Your task to perform on an android device: turn off location Image 0: 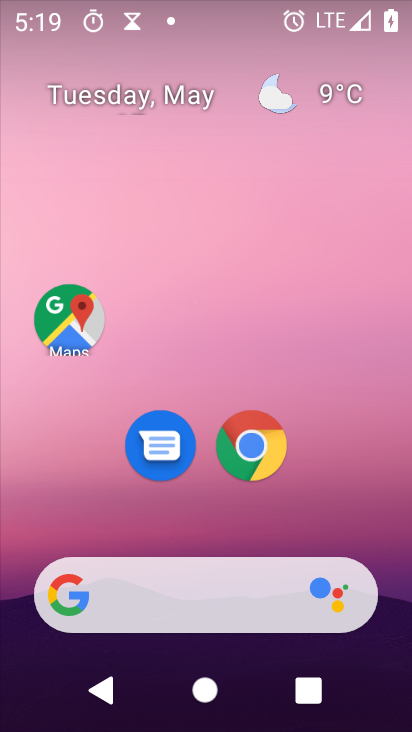
Step 0: drag from (254, 569) to (189, 4)
Your task to perform on an android device: turn off location Image 1: 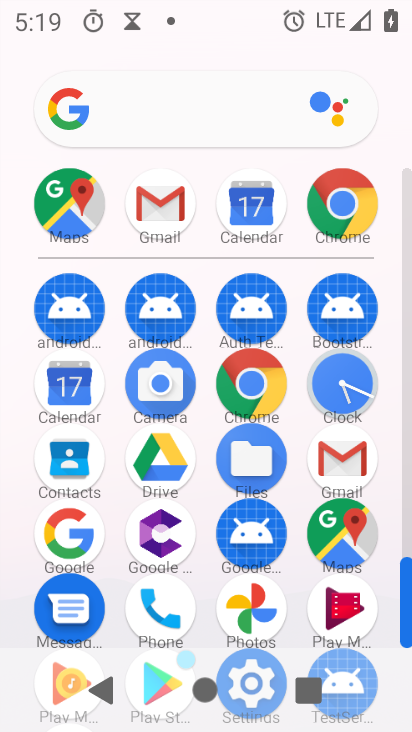
Step 1: drag from (289, 600) to (286, 380)
Your task to perform on an android device: turn off location Image 2: 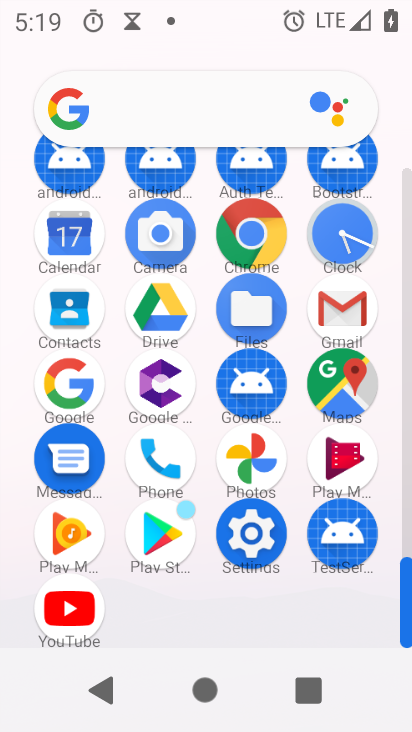
Step 2: click (252, 550)
Your task to perform on an android device: turn off location Image 3: 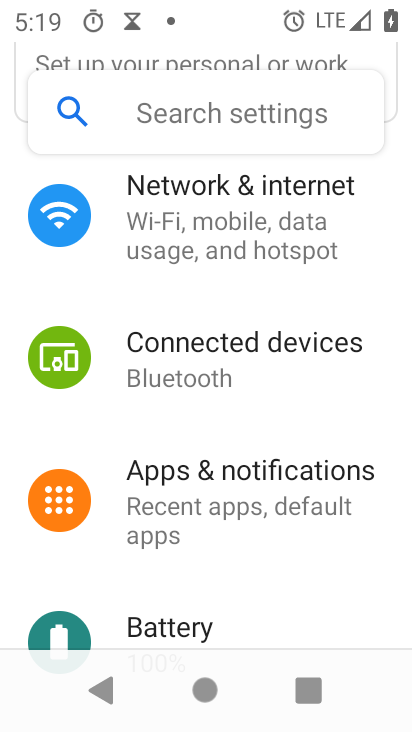
Step 3: drag from (268, 566) to (256, 158)
Your task to perform on an android device: turn off location Image 4: 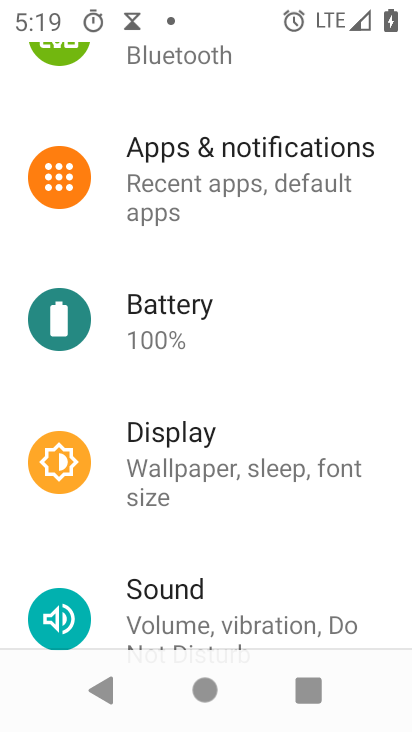
Step 4: drag from (215, 560) to (219, 179)
Your task to perform on an android device: turn off location Image 5: 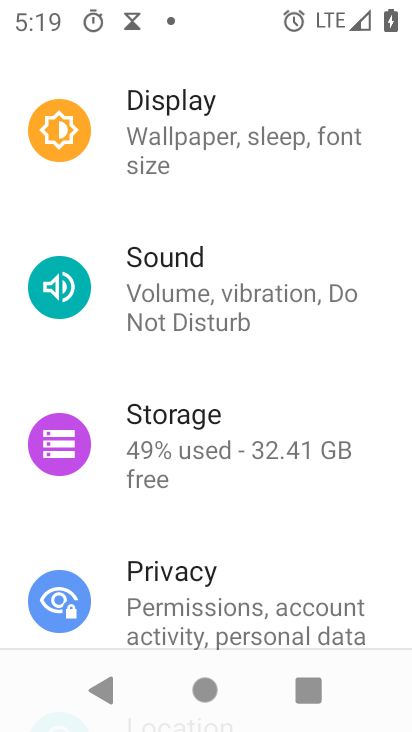
Step 5: drag from (216, 594) to (231, 201)
Your task to perform on an android device: turn off location Image 6: 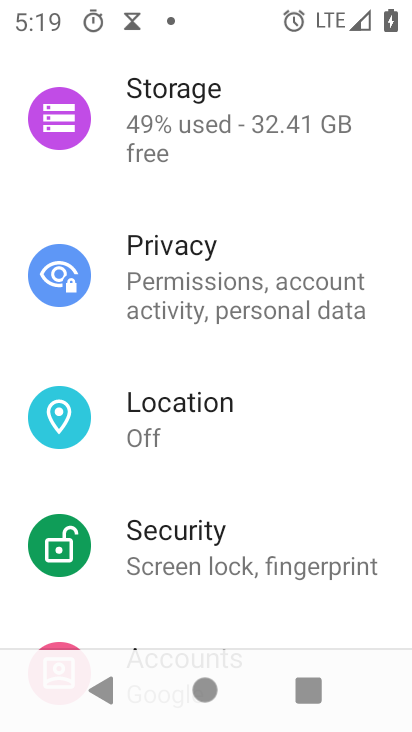
Step 6: click (225, 411)
Your task to perform on an android device: turn off location Image 7: 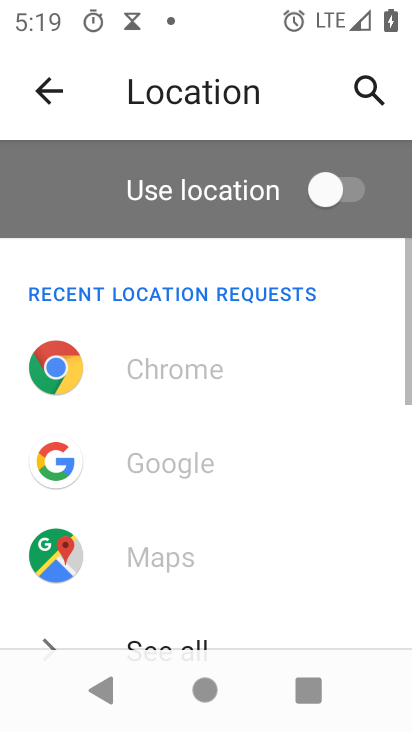
Step 7: task complete